Your task to perform on an android device: change the clock display to show seconds Image 0: 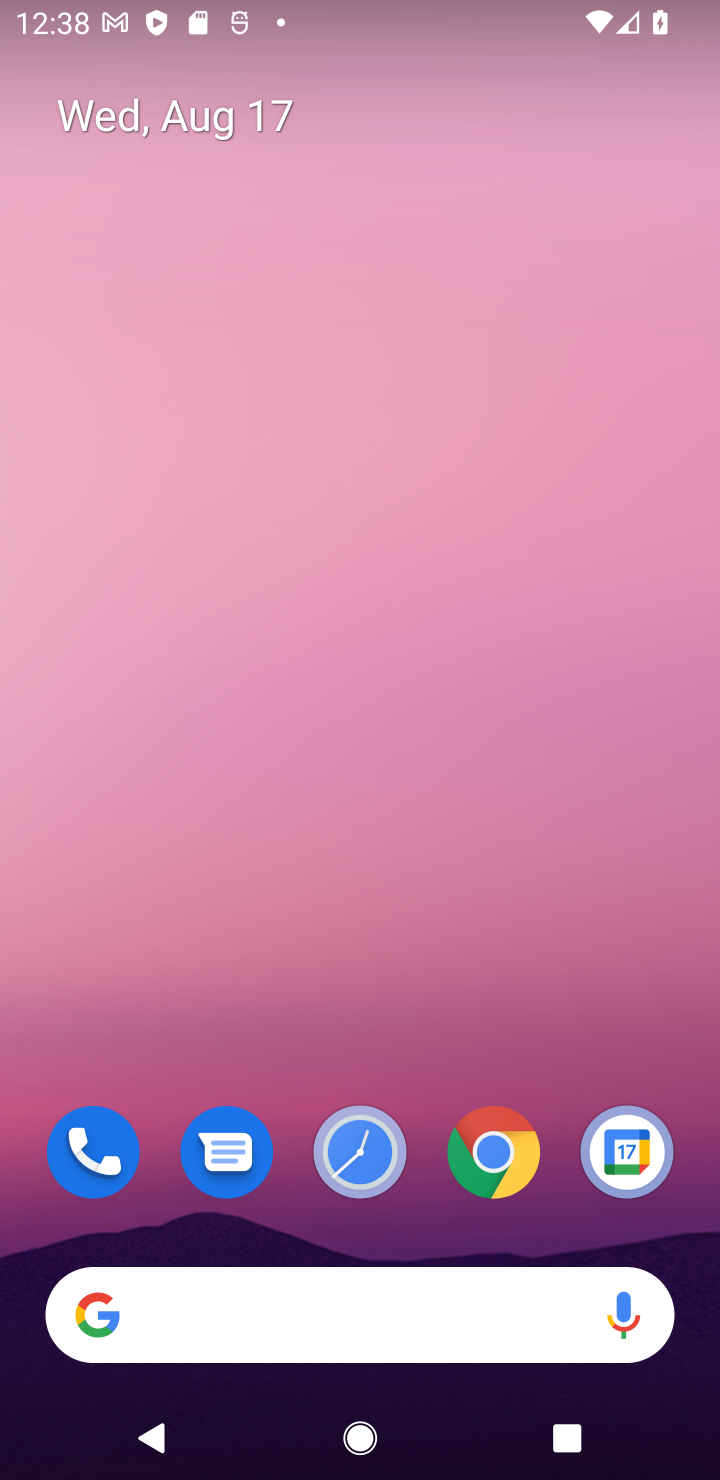
Step 0: drag from (571, 1197) to (291, 11)
Your task to perform on an android device: change the clock display to show seconds Image 1: 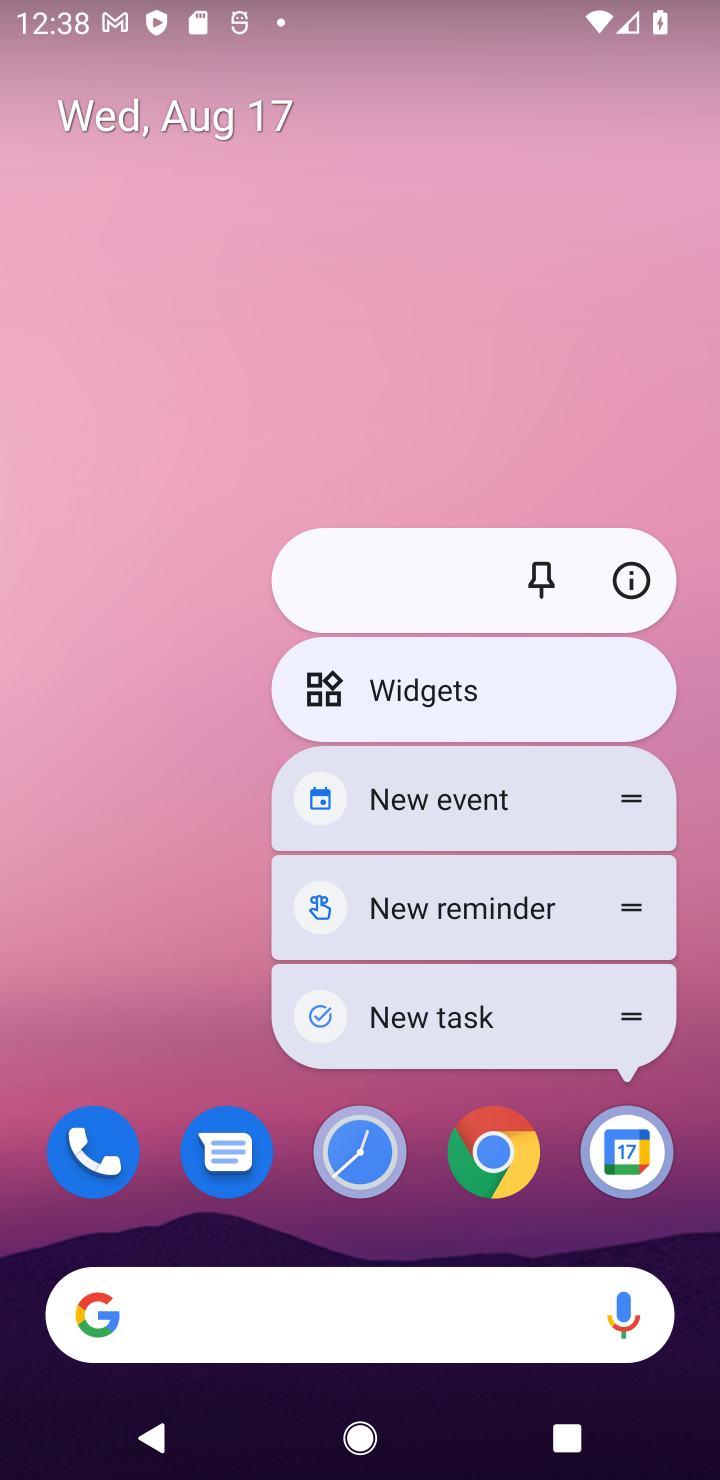
Step 1: click (47, 929)
Your task to perform on an android device: change the clock display to show seconds Image 2: 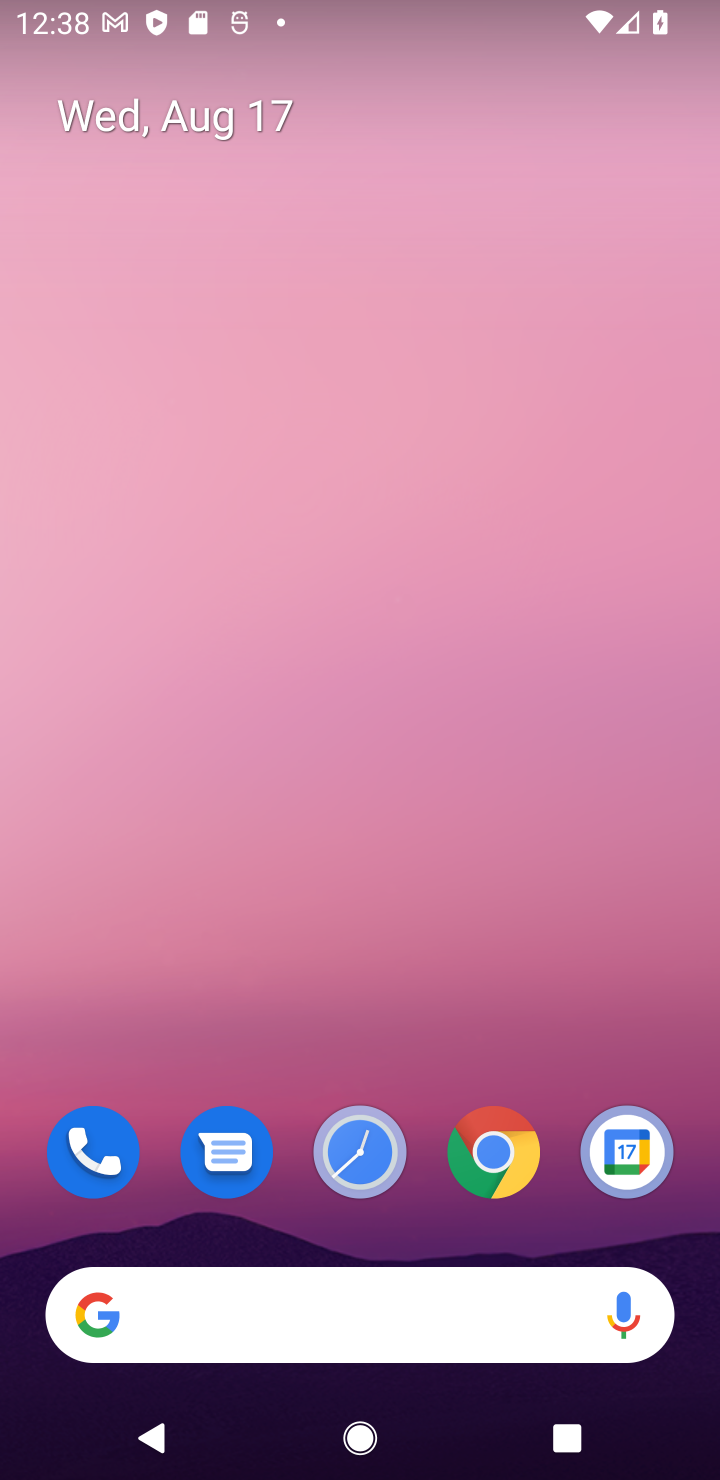
Step 2: drag from (548, 1124) to (233, 72)
Your task to perform on an android device: change the clock display to show seconds Image 3: 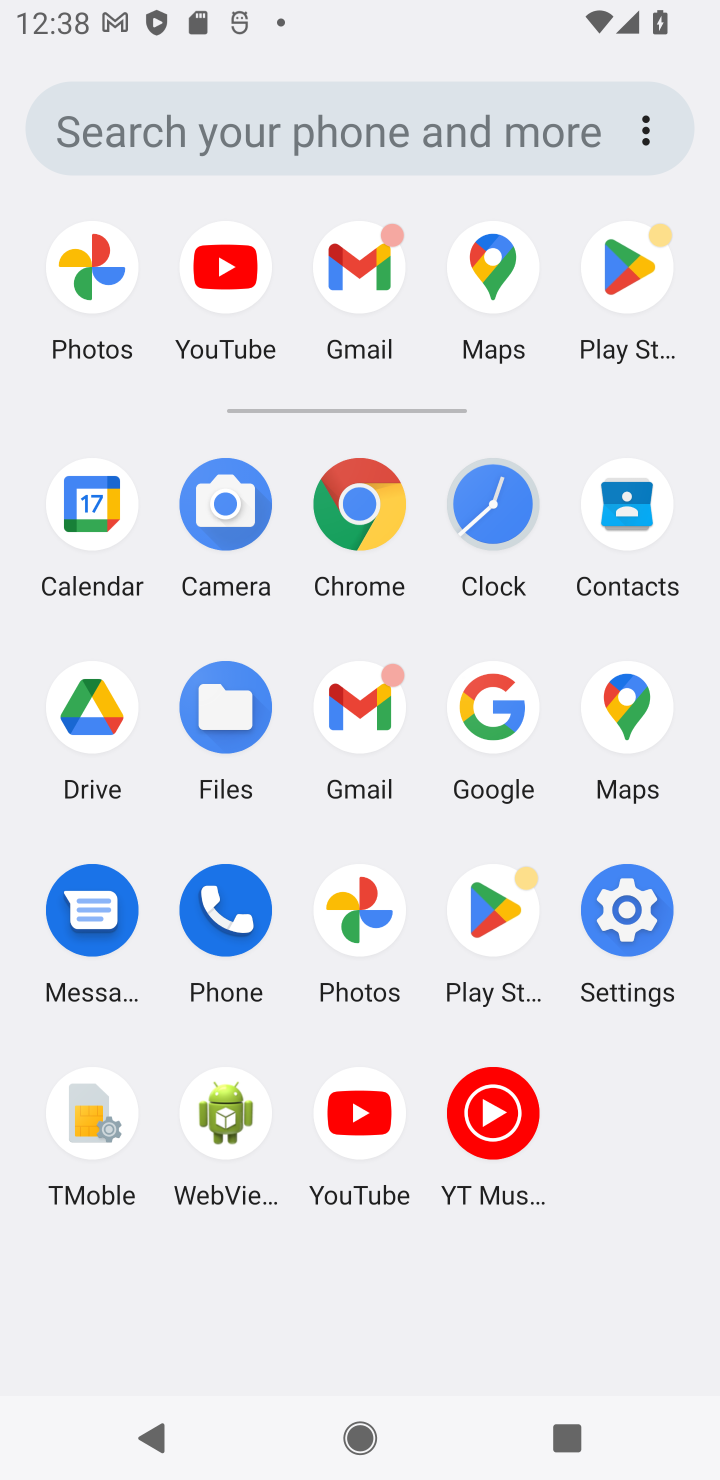
Step 3: click (471, 525)
Your task to perform on an android device: change the clock display to show seconds Image 4: 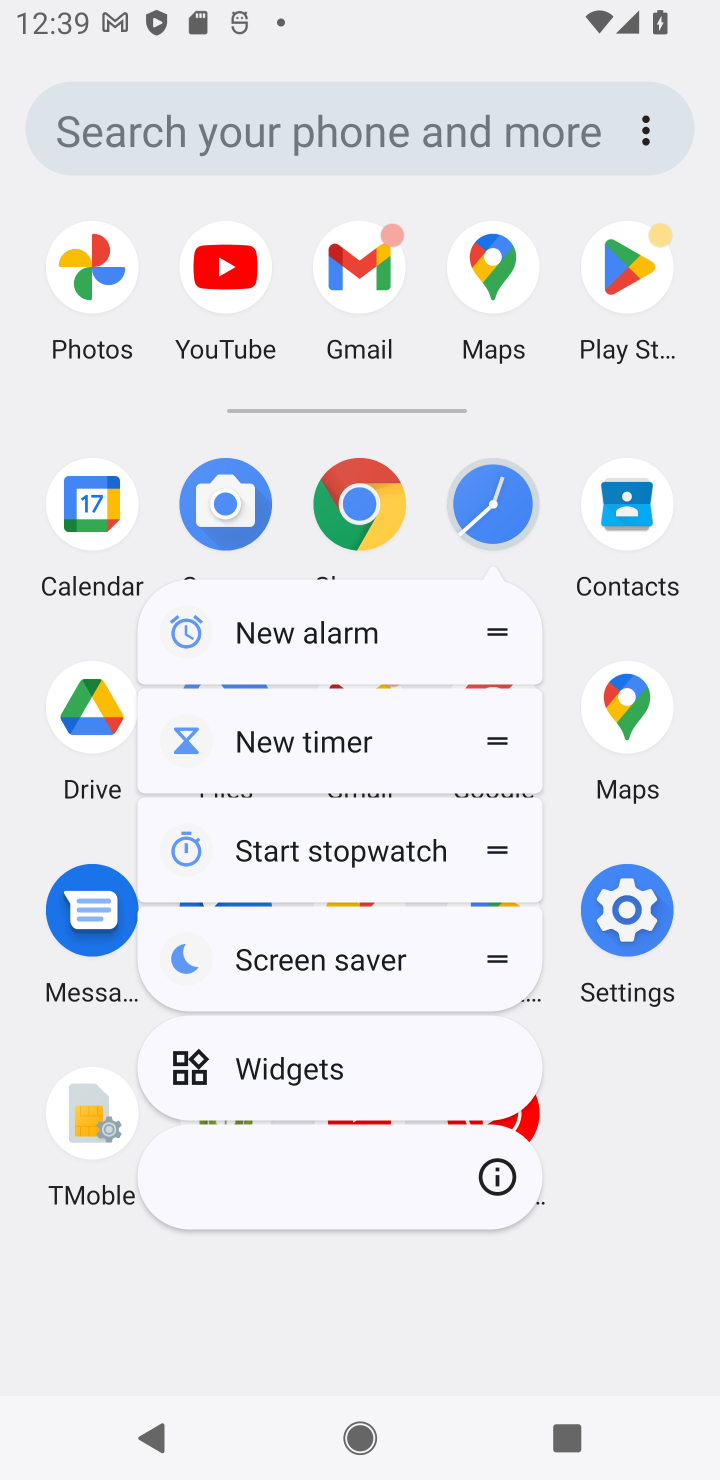
Step 4: click (510, 494)
Your task to perform on an android device: change the clock display to show seconds Image 5: 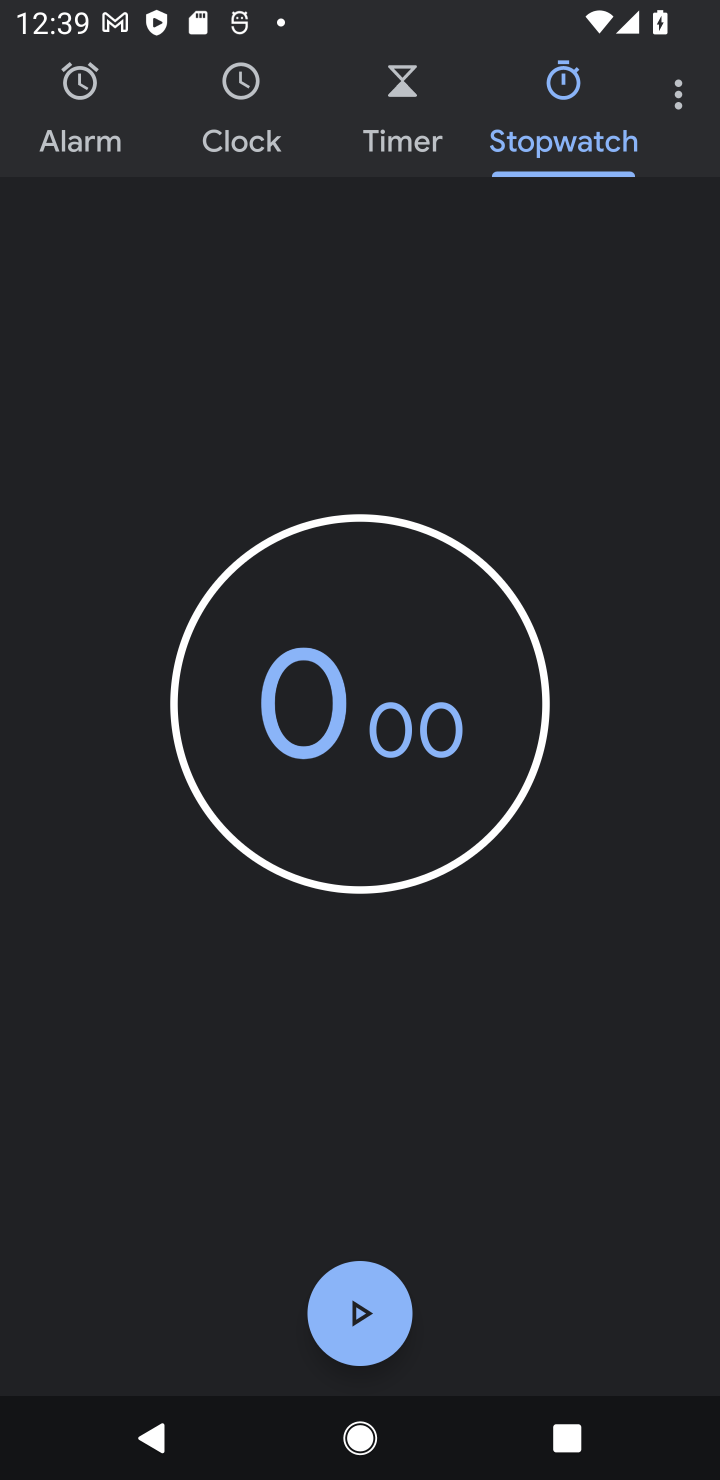
Step 5: click (669, 109)
Your task to perform on an android device: change the clock display to show seconds Image 6: 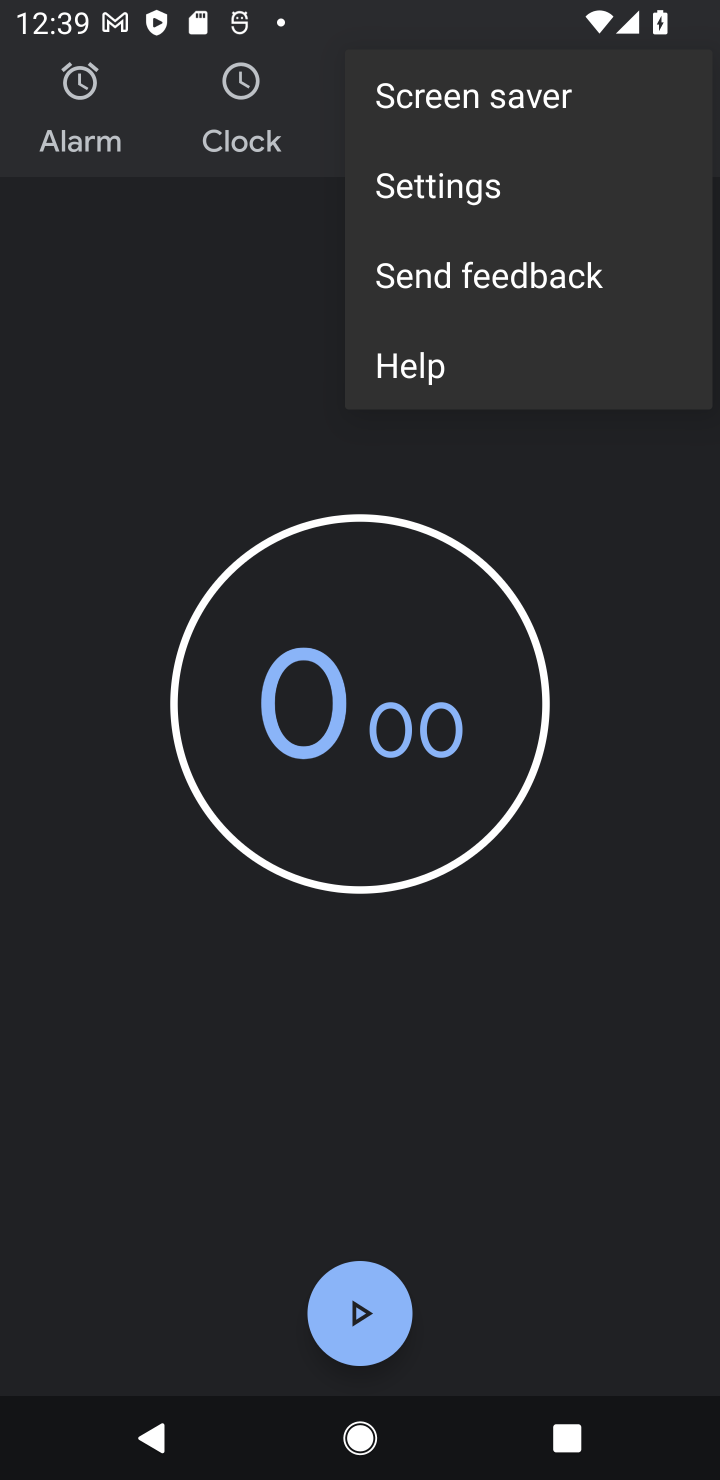
Step 6: click (471, 180)
Your task to perform on an android device: change the clock display to show seconds Image 7: 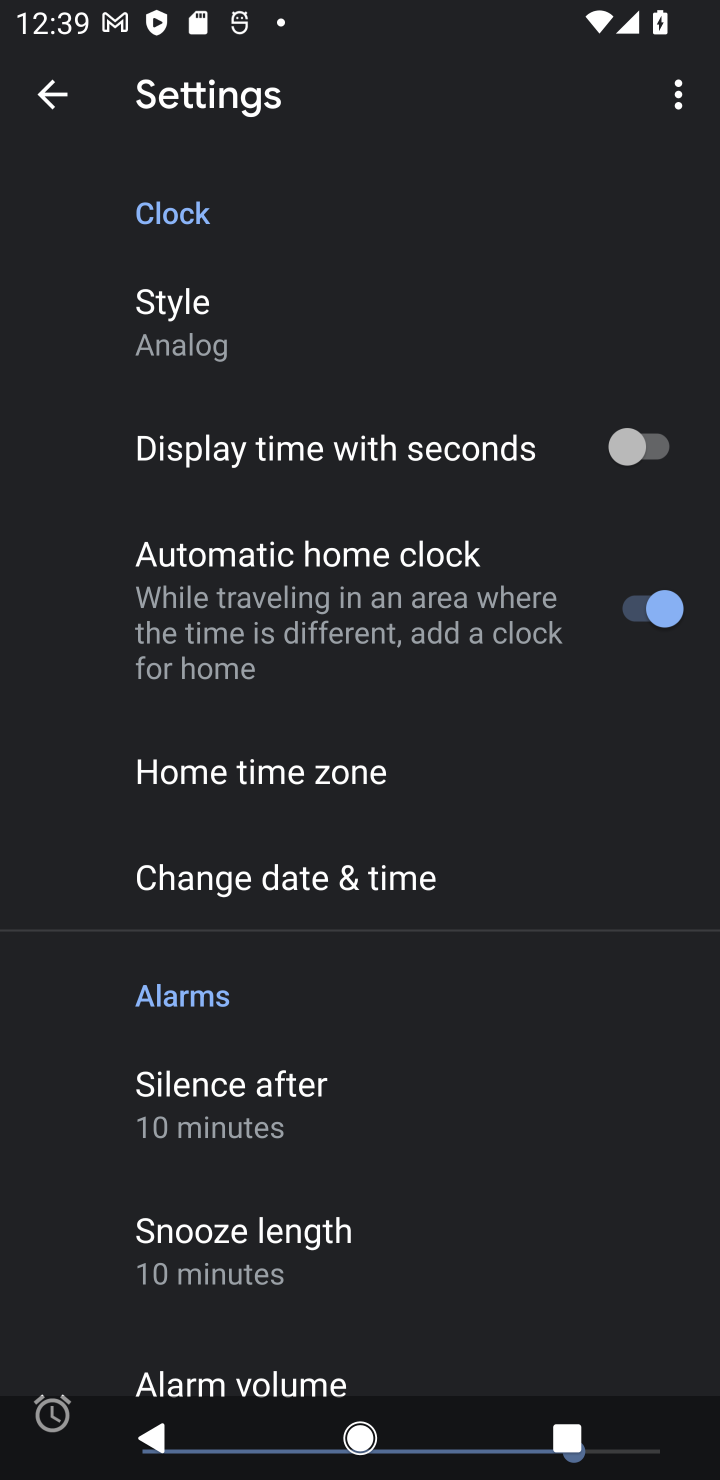
Step 7: click (618, 426)
Your task to perform on an android device: change the clock display to show seconds Image 8: 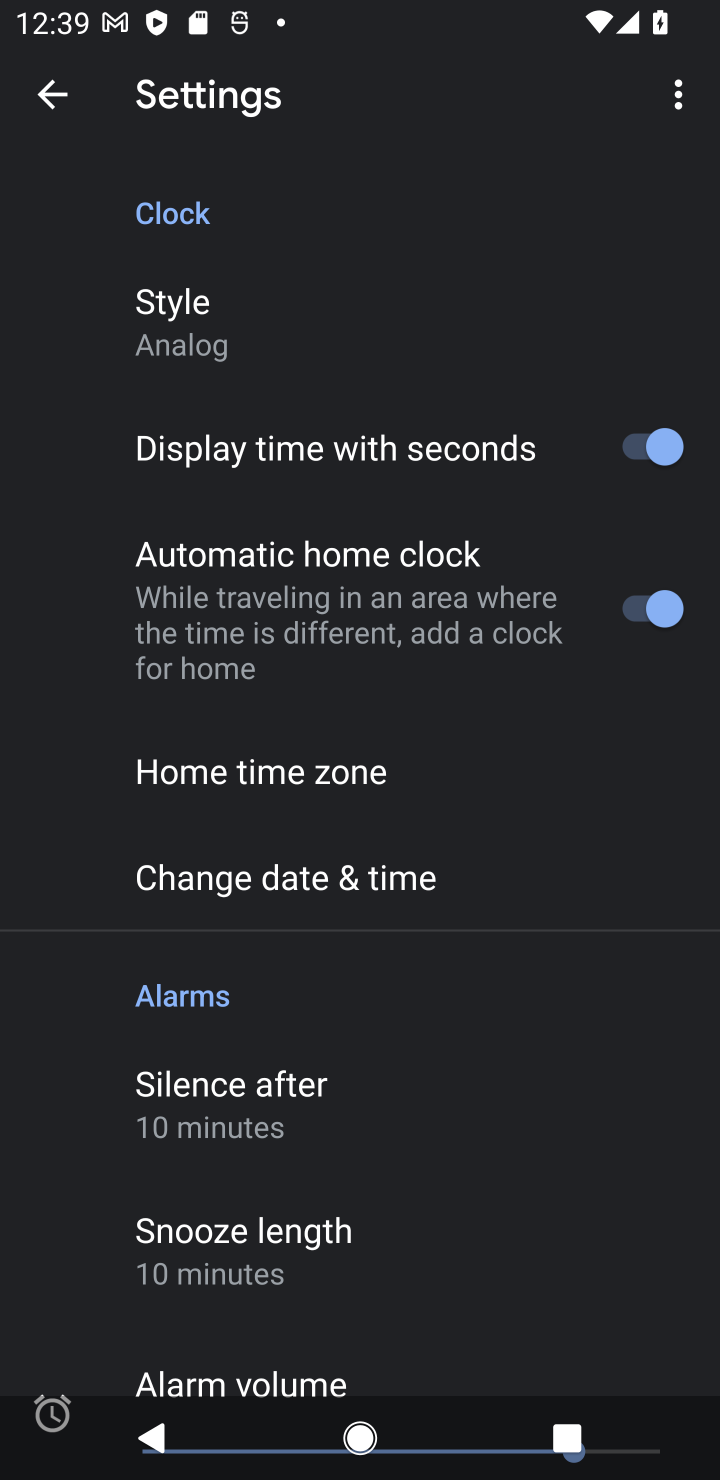
Step 8: task complete